Your task to perform on an android device: set an alarm Image 0: 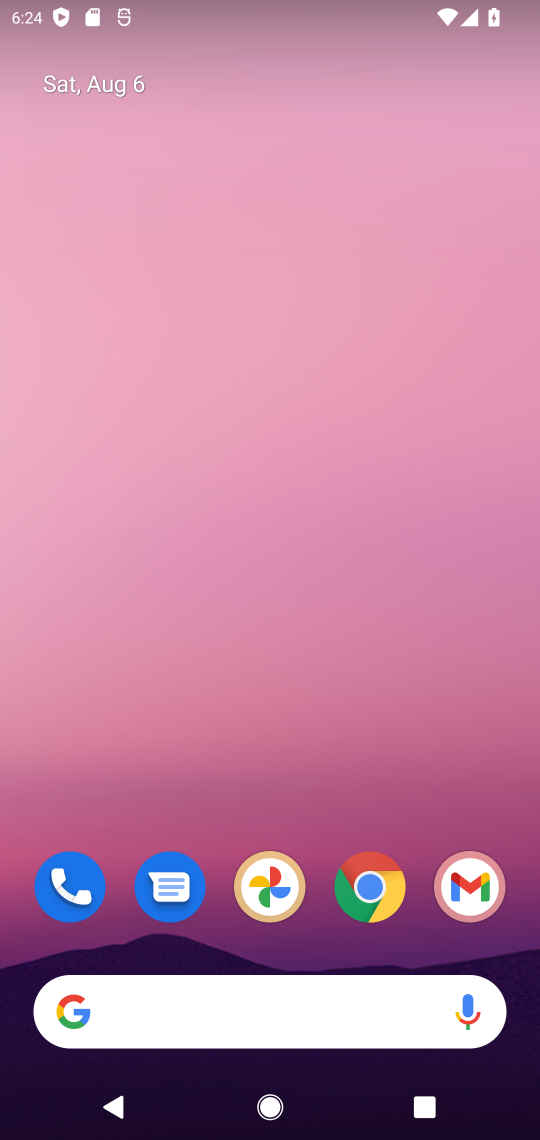
Step 0: drag from (404, 366) to (257, 89)
Your task to perform on an android device: set an alarm Image 1: 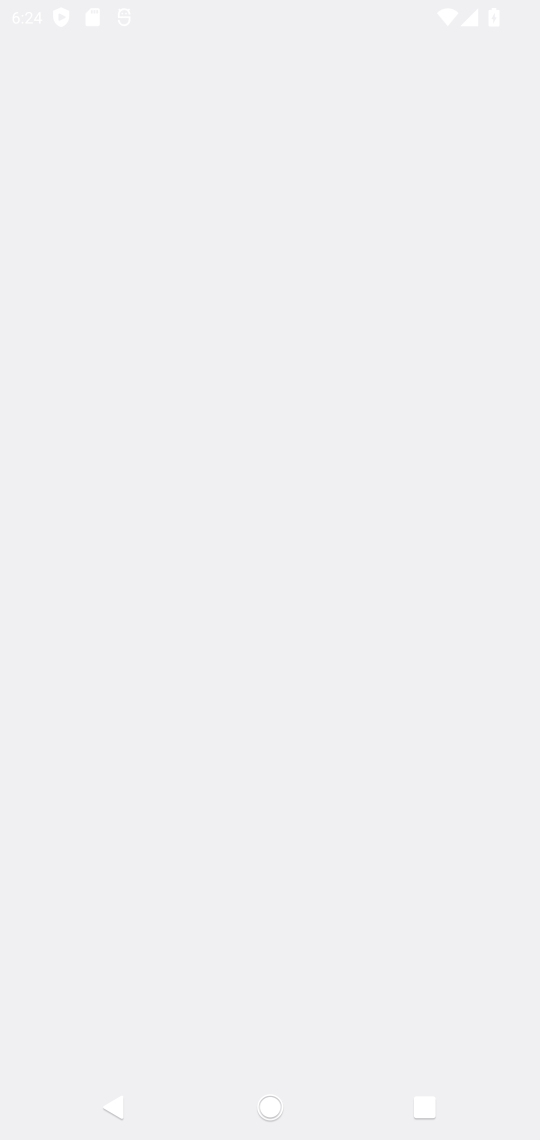
Step 1: drag from (278, 440) to (201, 37)
Your task to perform on an android device: set an alarm Image 2: 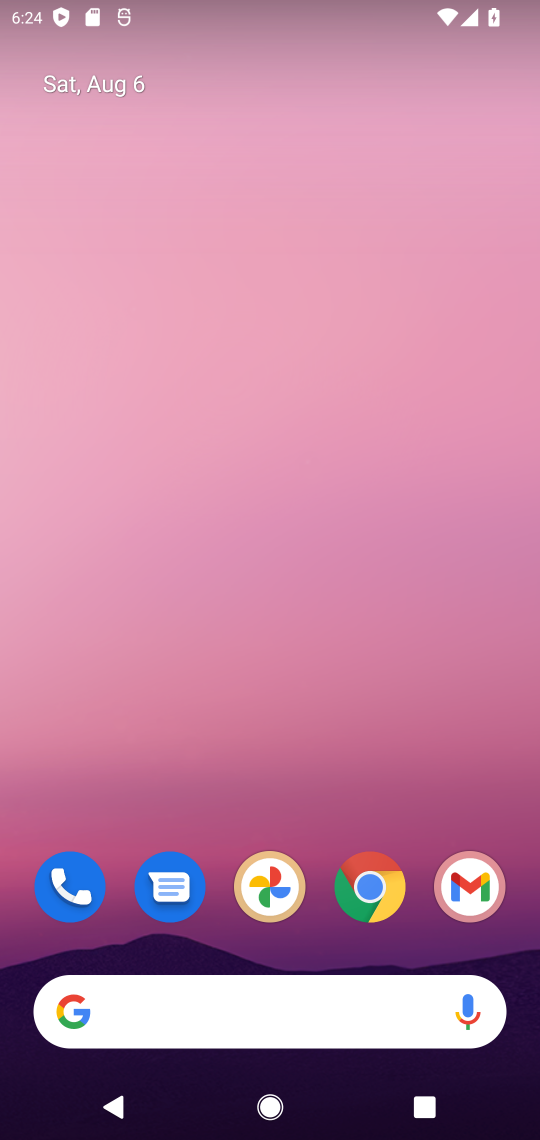
Step 2: drag from (300, 747) to (250, 367)
Your task to perform on an android device: set an alarm Image 3: 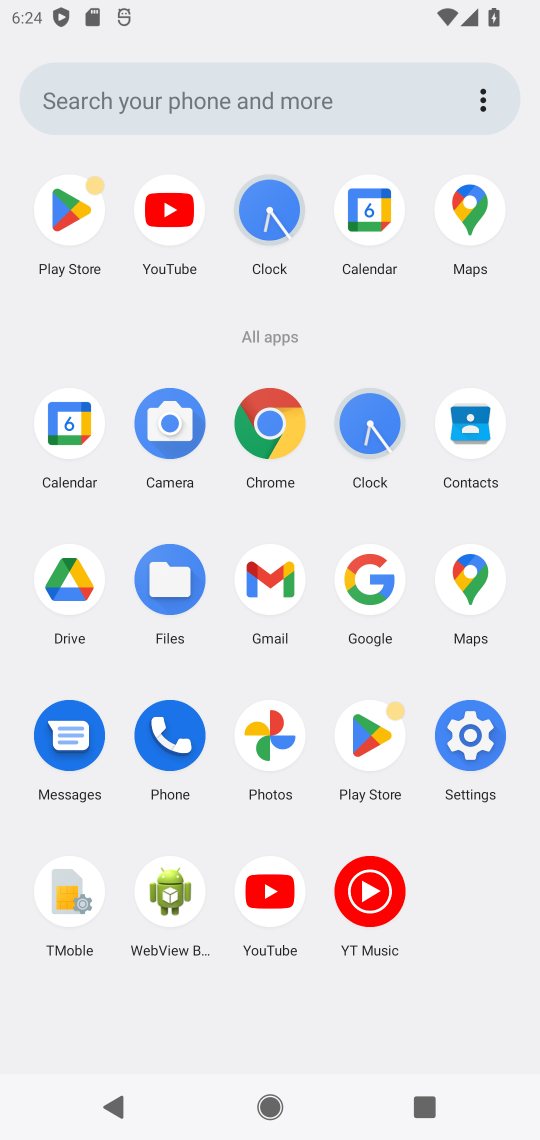
Step 3: click (364, 430)
Your task to perform on an android device: set an alarm Image 4: 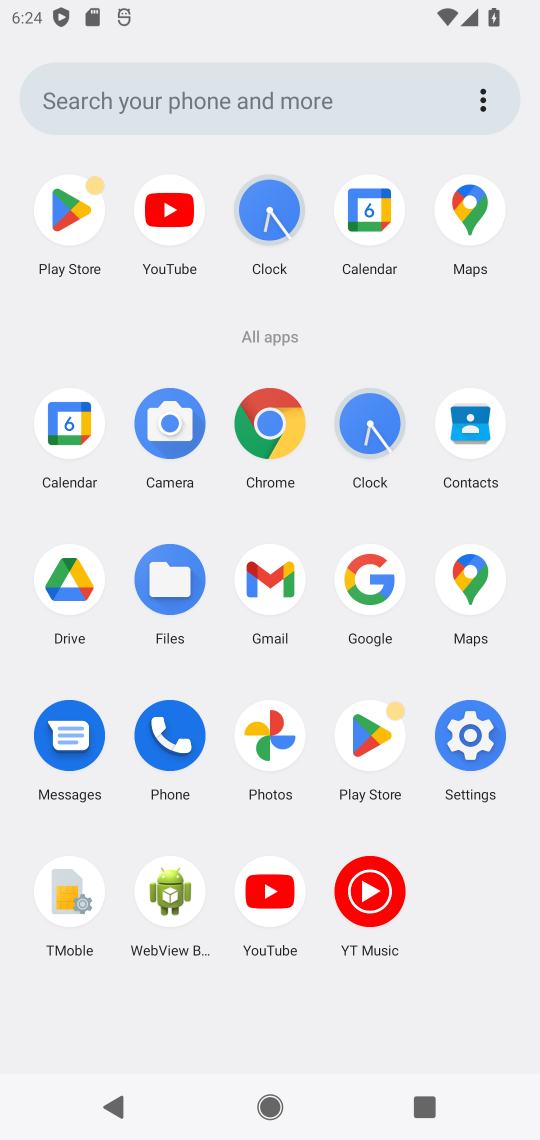
Step 4: click (367, 430)
Your task to perform on an android device: set an alarm Image 5: 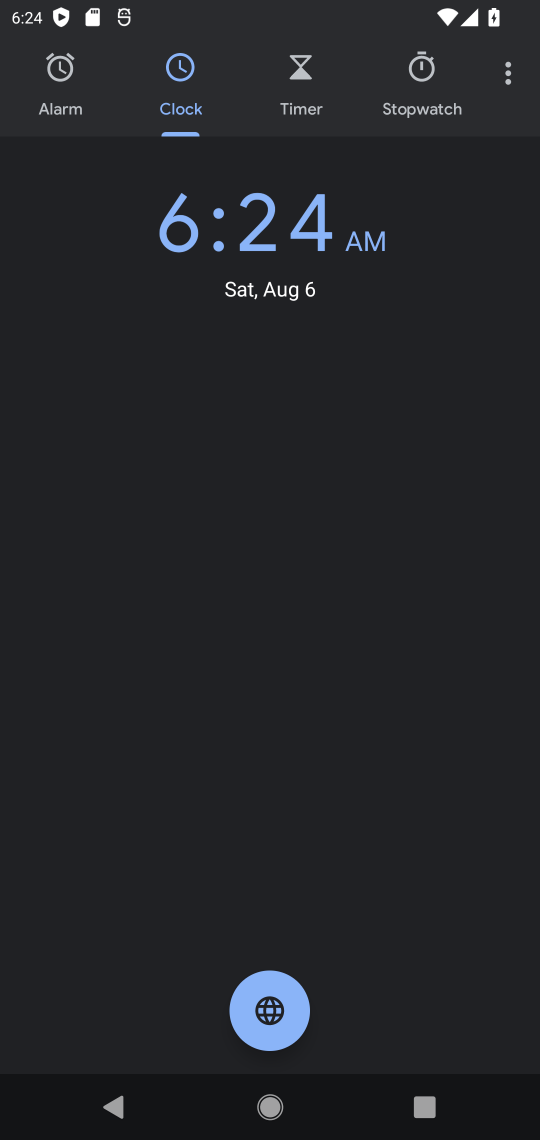
Step 5: click (67, 100)
Your task to perform on an android device: set an alarm Image 6: 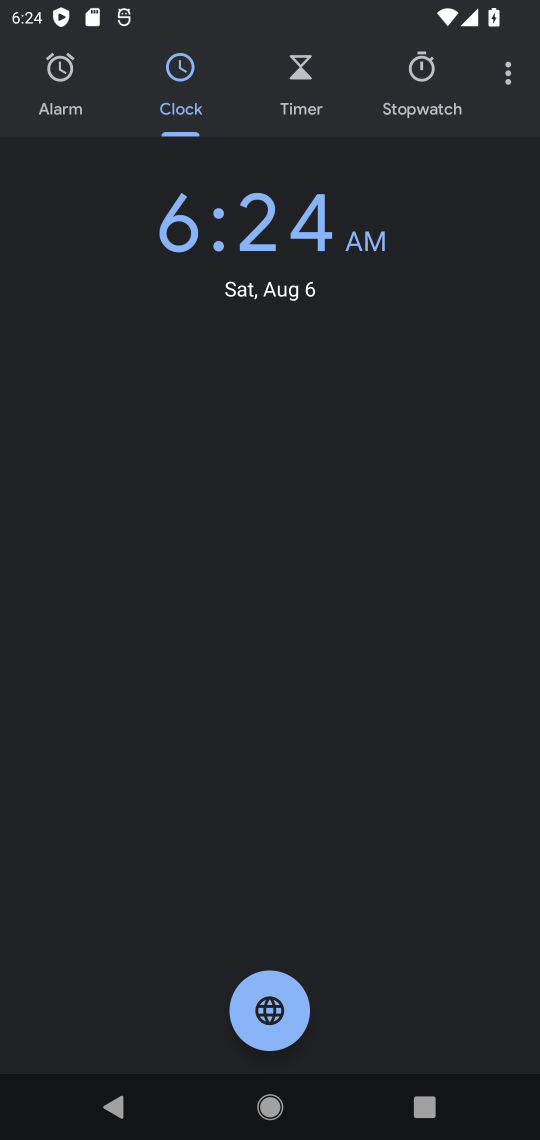
Step 6: click (67, 100)
Your task to perform on an android device: set an alarm Image 7: 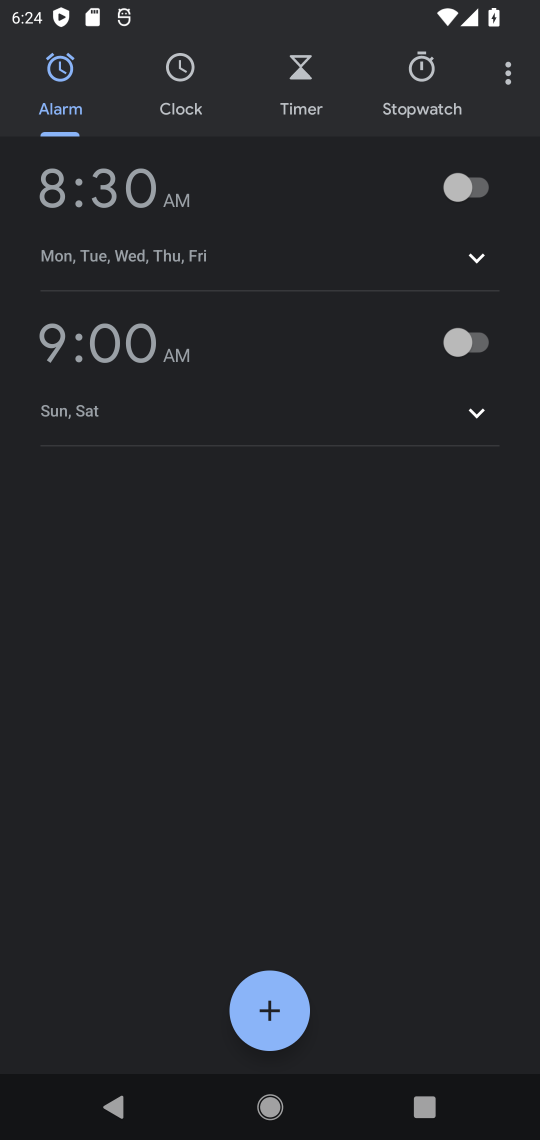
Step 7: click (442, 196)
Your task to perform on an android device: set an alarm Image 8: 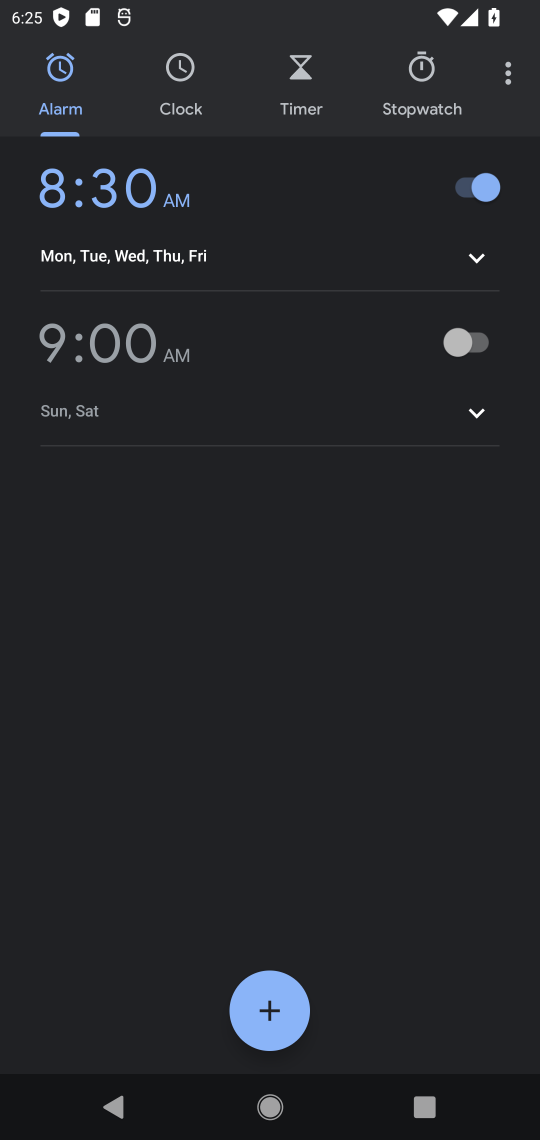
Step 8: task complete